Your task to perform on an android device: What's the weather going to be tomorrow? Image 0: 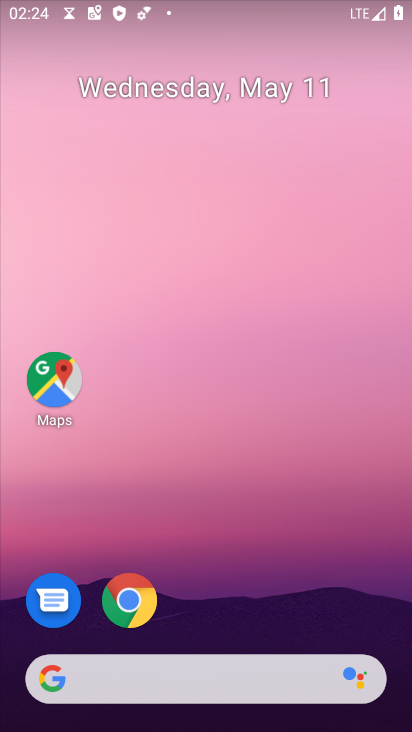
Step 0: drag from (283, 581) to (289, 199)
Your task to perform on an android device: What's the weather going to be tomorrow? Image 1: 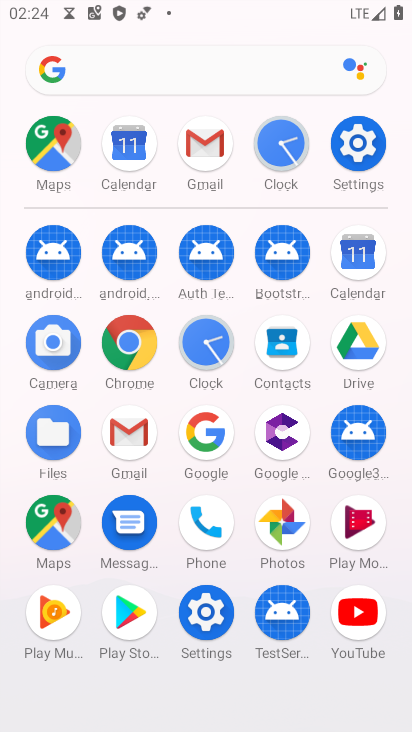
Step 1: click (136, 342)
Your task to perform on an android device: What's the weather going to be tomorrow? Image 2: 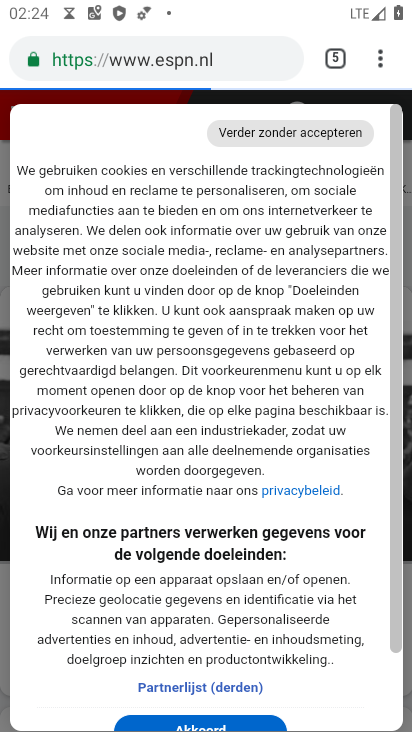
Step 2: click (371, 55)
Your task to perform on an android device: What's the weather going to be tomorrow? Image 3: 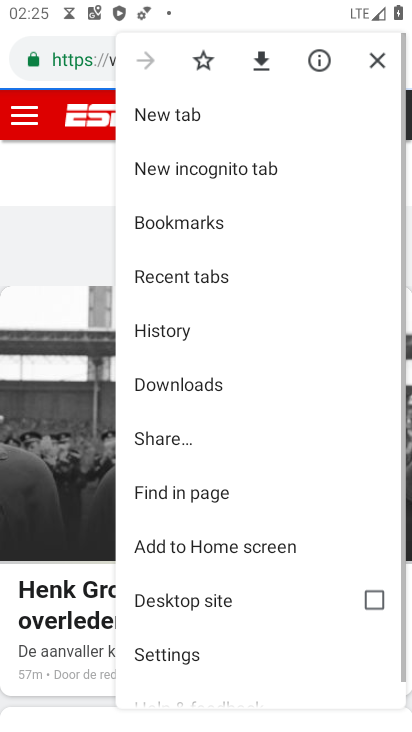
Step 3: click (165, 120)
Your task to perform on an android device: What's the weather going to be tomorrow? Image 4: 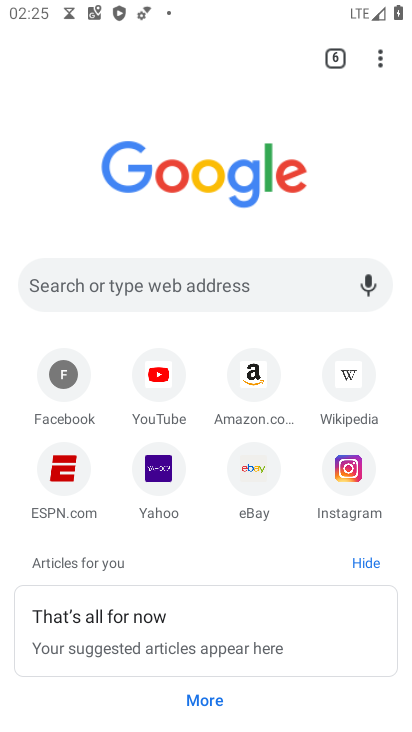
Step 4: click (230, 273)
Your task to perform on an android device: What's the weather going to be tomorrow? Image 5: 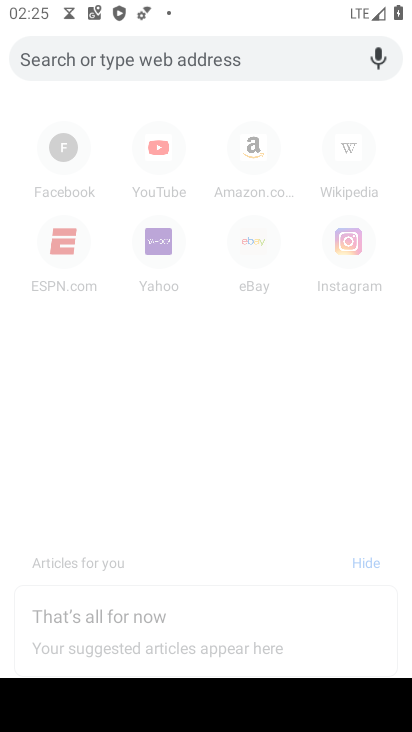
Step 5: type "What's the weather going to be tomorrow?"
Your task to perform on an android device: What's the weather going to be tomorrow? Image 6: 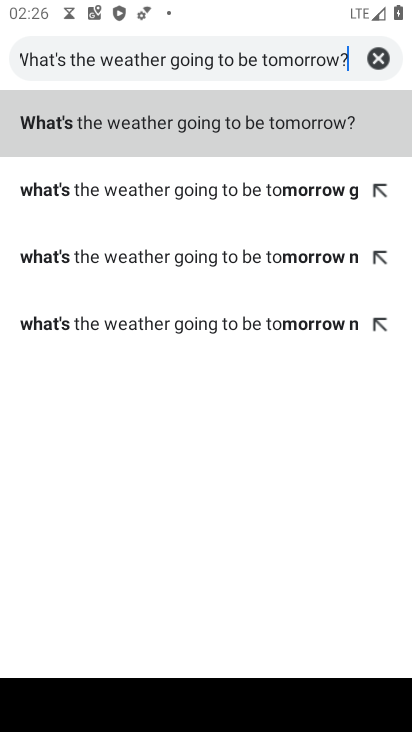
Step 6: click (180, 117)
Your task to perform on an android device: What's the weather going to be tomorrow? Image 7: 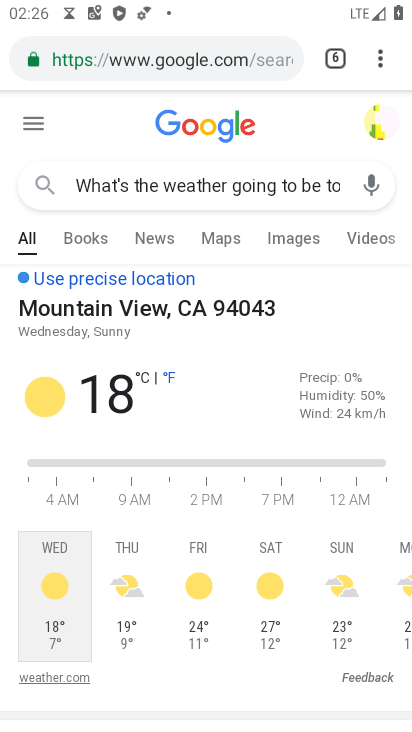
Step 7: task complete